Your task to perform on an android device: clear history in the chrome app Image 0: 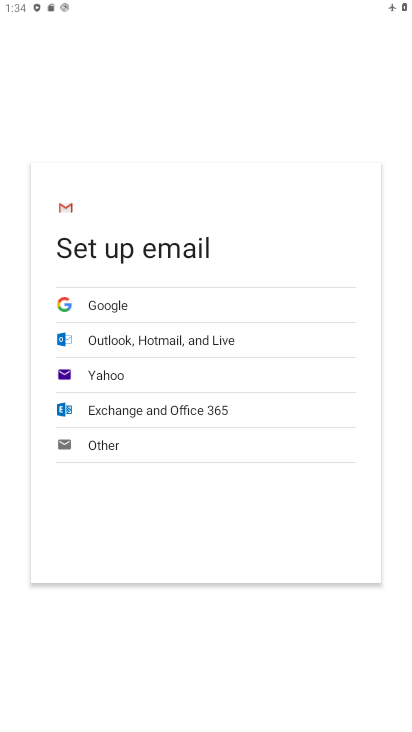
Step 0: press home button
Your task to perform on an android device: clear history in the chrome app Image 1: 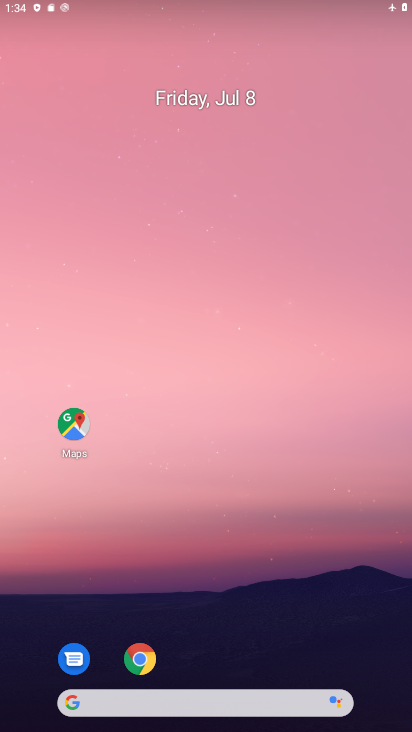
Step 1: drag from (229, 502) to (300, 95)
Your task to perform on an android device: clear history in the chrome app Image 2: 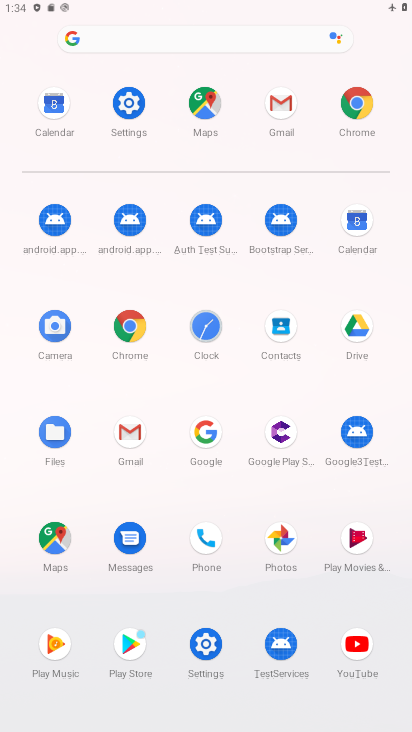
Step 2: click (141, 336)
Your task to perform on an android device: clear history in the chrome app Image 3: 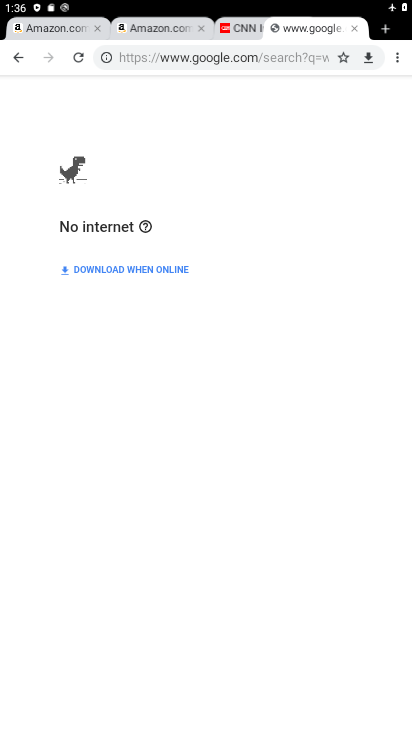
Step 3: click (397, 59)
Your task to perform on an android device: clear history in the chrome app Image 4: 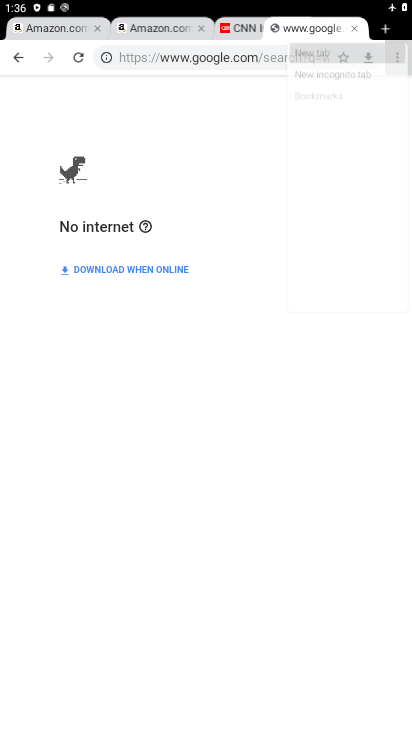
Step 4: click (374, 157)
Your task to perform on an android device: clear history in the chrome app Image 5: 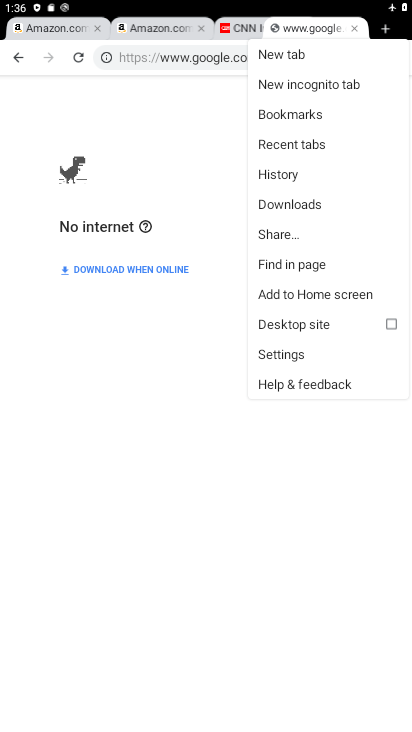
Step 5: click (285, 183)
Your task to perform on an android device: clear history in the chrome app Image 6: 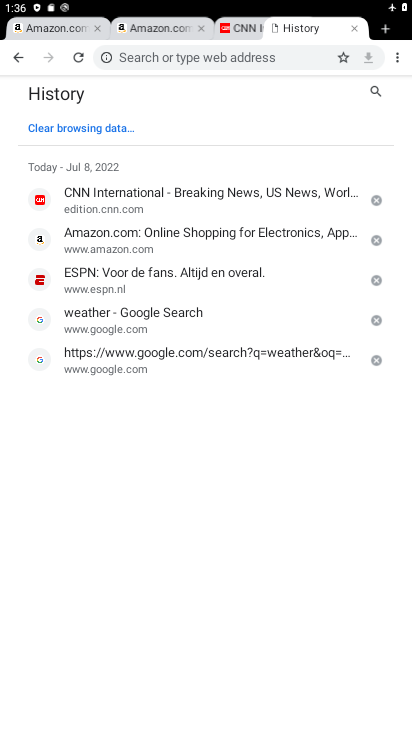
Step 6: click (48, 122)
Your task to perform on an android device: clear history in the chrome app Image 7: 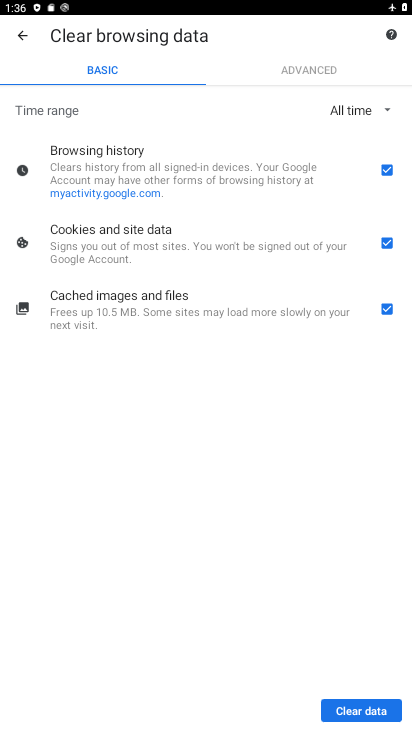
Step 7: click (383, 706)
Your task to perform on an android device: clear history in the chrome app Image 8: 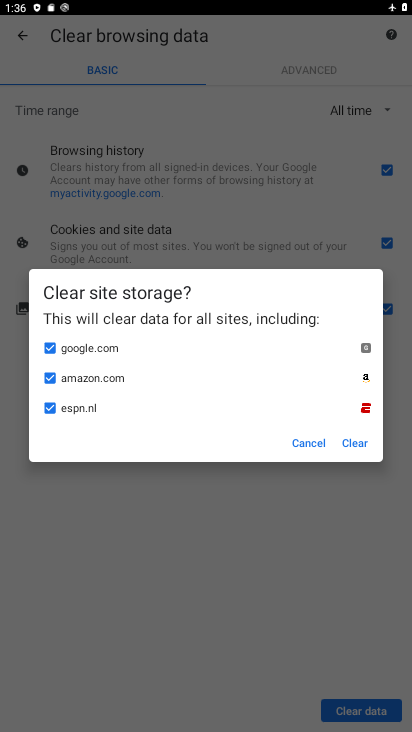
Step 8: click (358, 451)
Your task to perform on an android device: clear history in the chrome app Image 9: 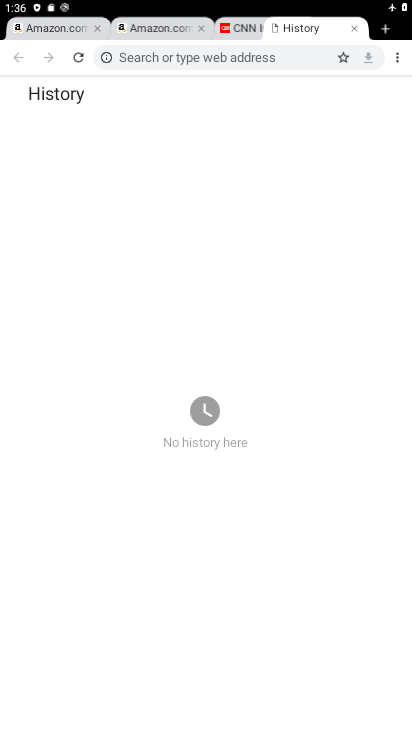
Step 9: task complete